Your task to perform on an android device: Open eBay Image 0: 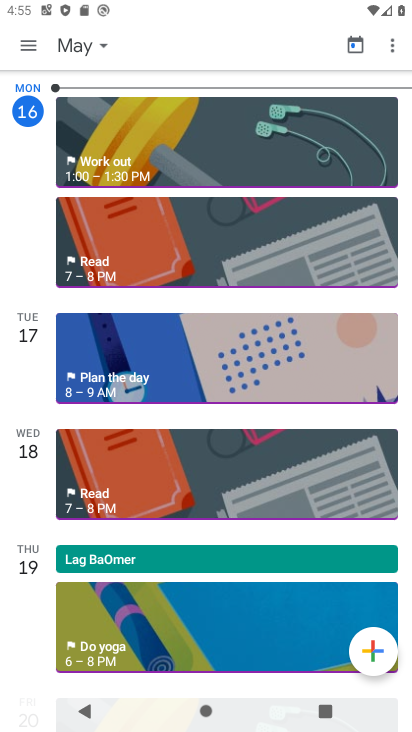
Step 0: press back button
Your task to perform on an android device: Open eBay Image 1: 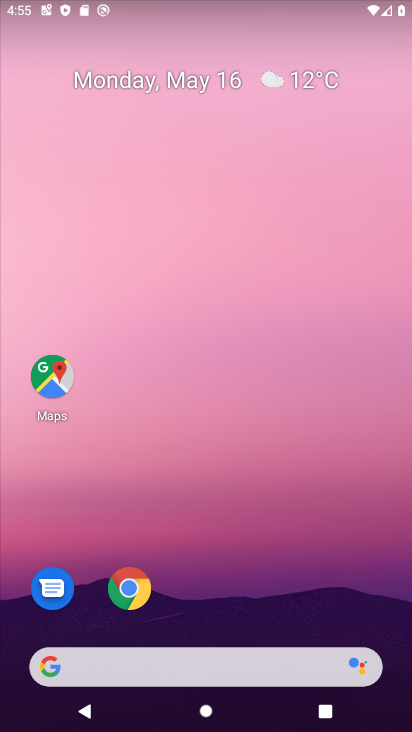
Step 1: click (122, 589)
Your task to perform on an android device: Open eBay Image 2: 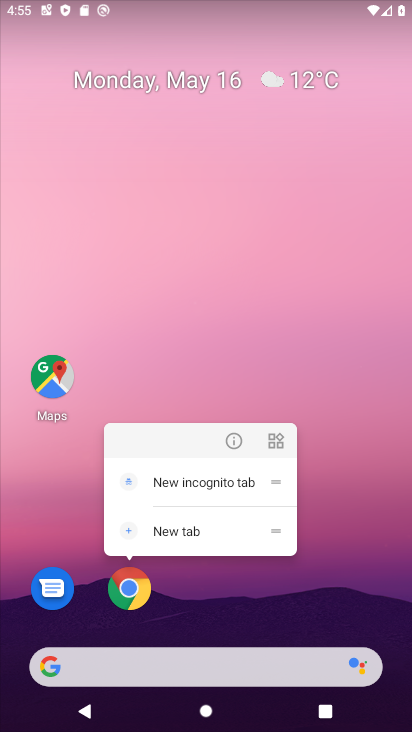
Step 2: click (136, 581)
Your task to perform on an android device: Open eBay Image 3: 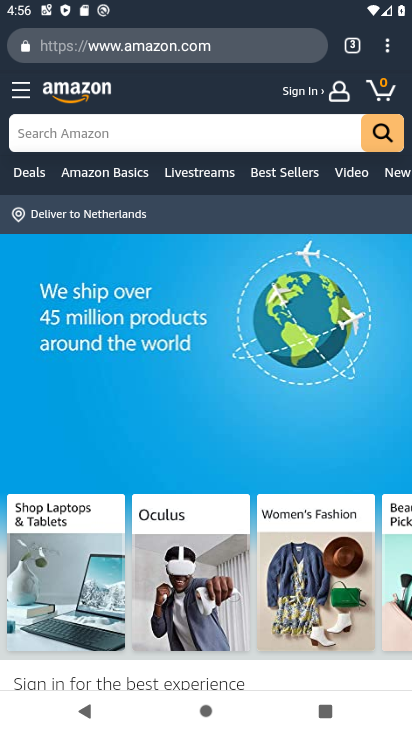
Step 3: click (353, 43)
Your task to perform on an android device: Open eBay Image 4: 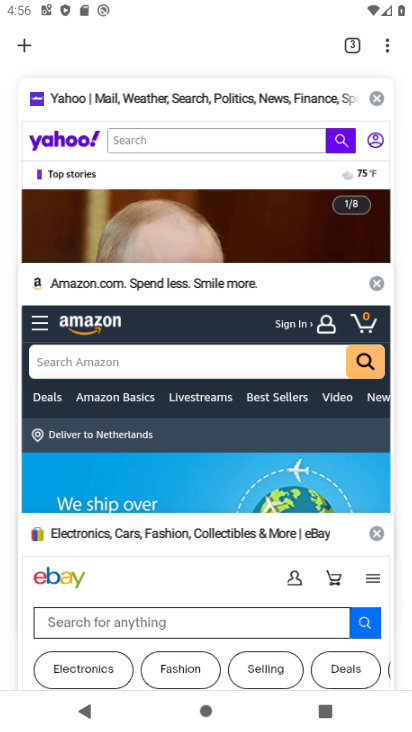
Step 4: click (137, 561)
Your task to perform on an android device: Open eBay Image 5: 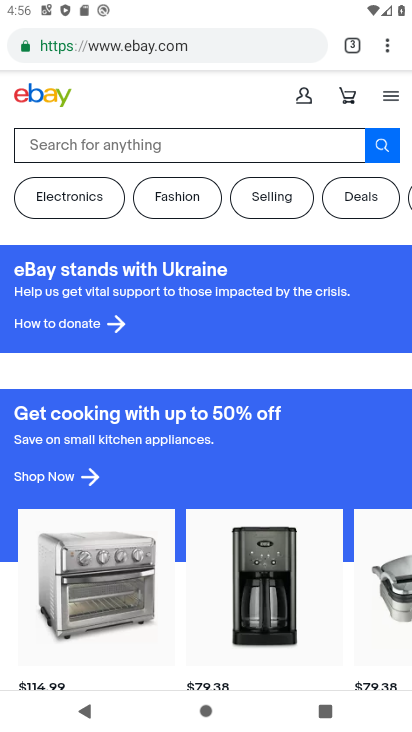
Step 5: task complete